Your task to perform on an android device: turn on data saver in the chrome app Image 0: 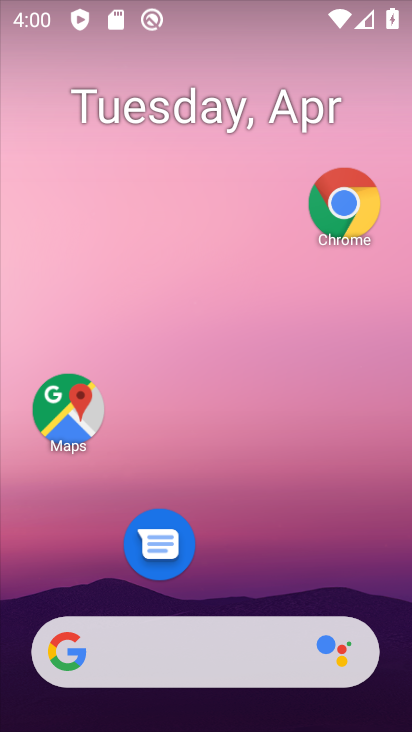
Step 0: click (342, 204)
Your task to perform on an android device: turn on data saver in the chrome app Image 1: 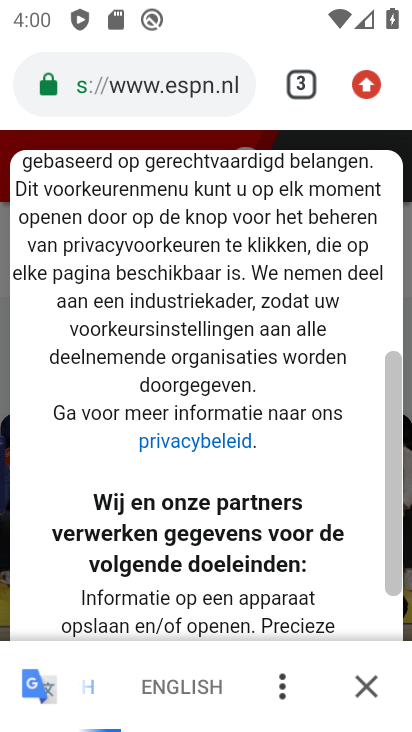
Step 1: click (366, 84)
Your task to perform on an android device: turn on data saver in the chrome app Image 2: 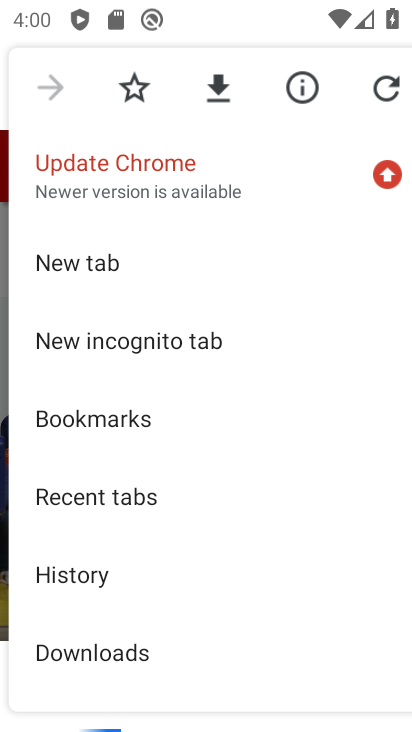
Step 2: drag from (151, 595) to (220, 16)
Your task to perform on an android device: turn on data saver in the chrome app Image 3: 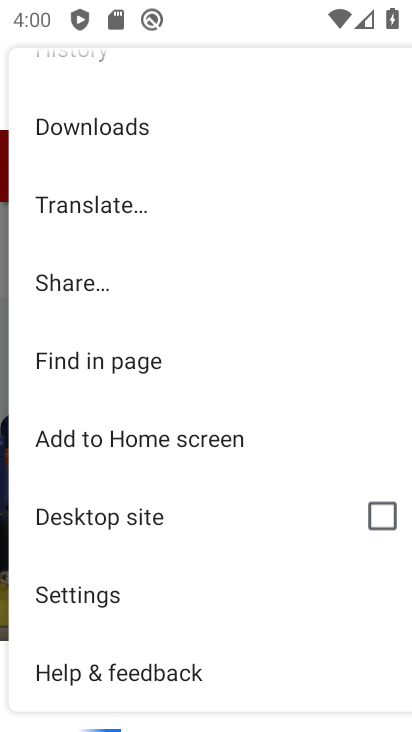
Step 3: click (91, 602)
Your task to perform on an android device: turn on data saver in the chrome app Image 4: 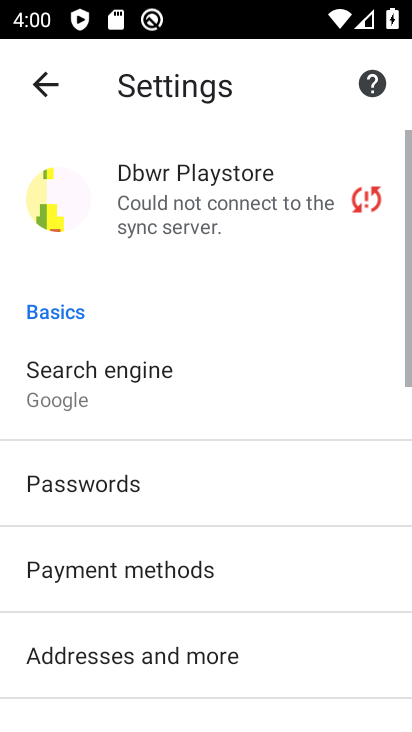
Step 4: drag from (135, 573) to (212, 52)
Your task to perform on an android device: turn on data saver in the chrome app Image 5: 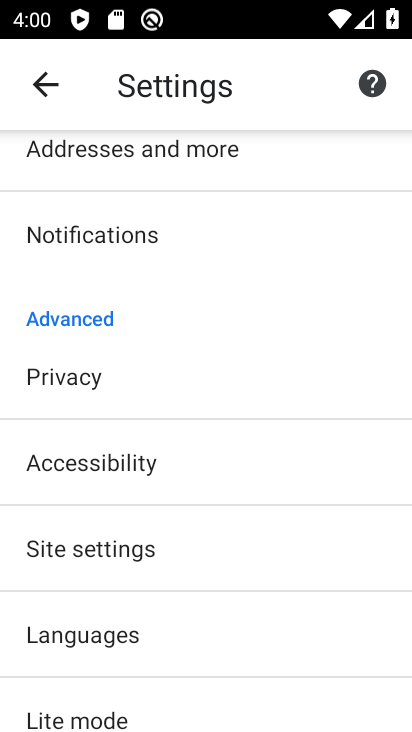
Step 5: drag from (132, 585) to (229, 80)
Your task to perform on an android device: turn on data saver in the chrome app Image 6: 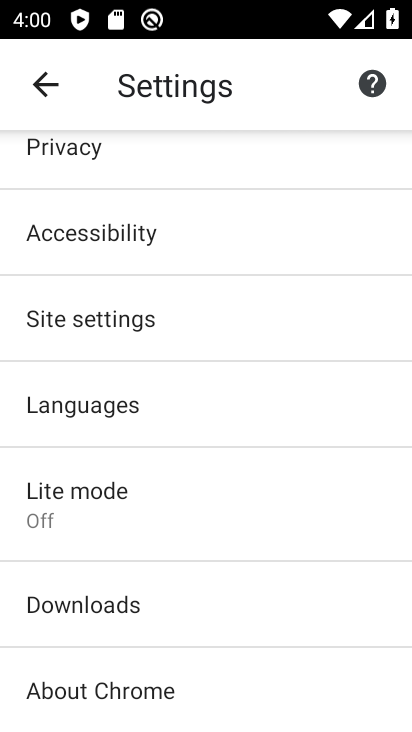
Step 6: click (98, 514)
Your task to perform on an android device: turn on data saver in the chrome app Image 7: 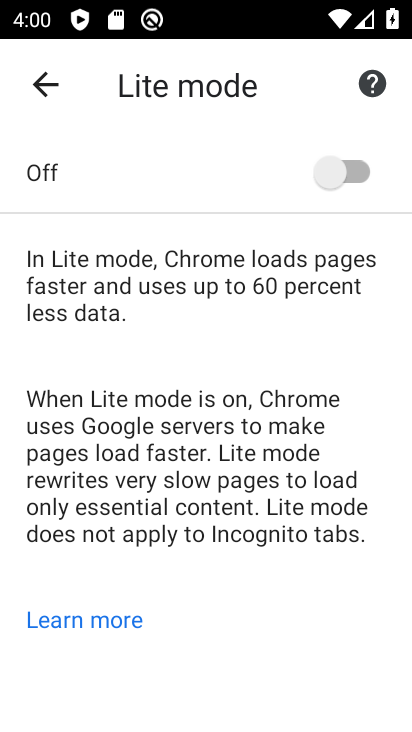
Step 7: click (353, 170)
Your task to perform on an android device: turn on data saver in the chrome app Image 8: 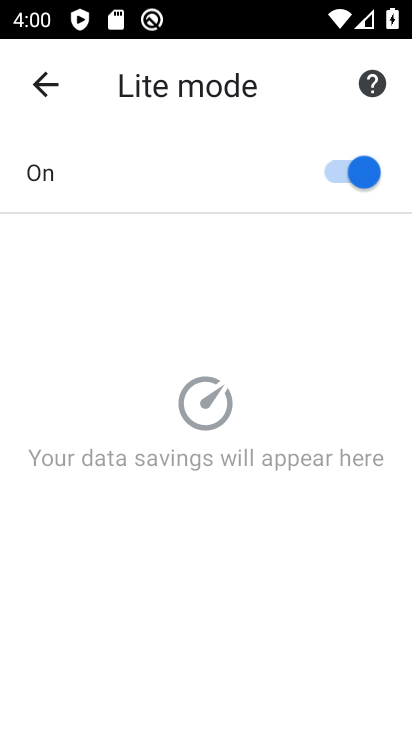
Step 8: task complete